Your task to perform on an android device: delete browsing data in the chrome app Image 0: 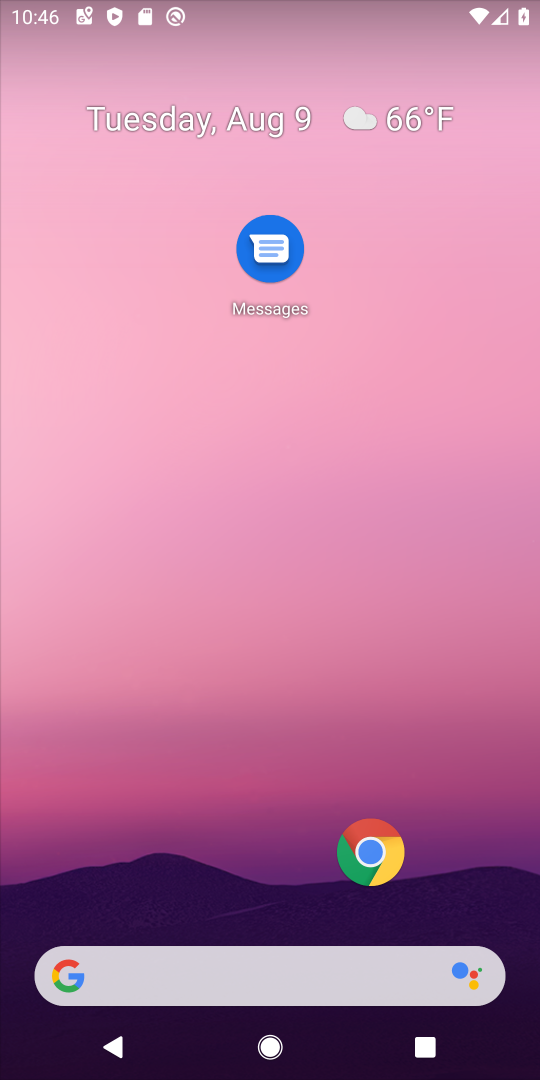
Step 0: click (354, 844)
Your task to perform on an android device: delete browsing data in the chrome app Image 1: 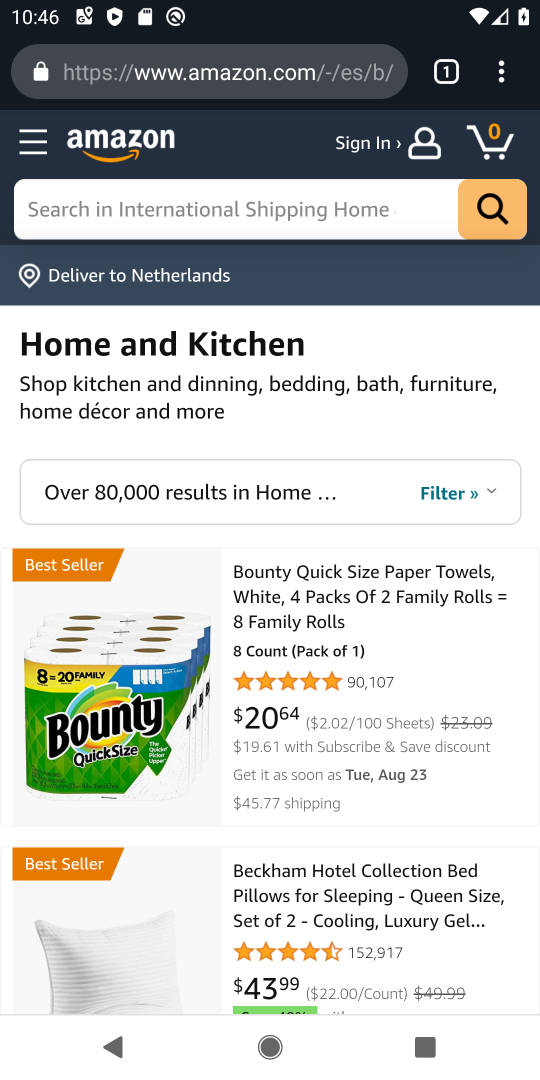
Step 1: click (491, 67)
Your task to perform on an android device: delete browsing data in the chrome app Image 2: 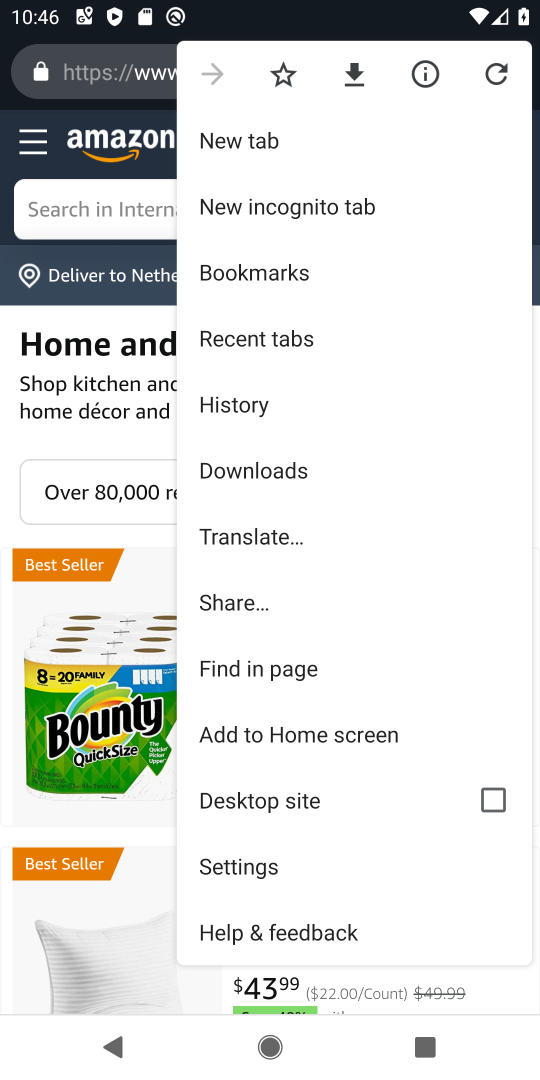
Step 2: click (242, 391)
Your task to perform on an android device: delete browsing data in the chrome app Image 3: 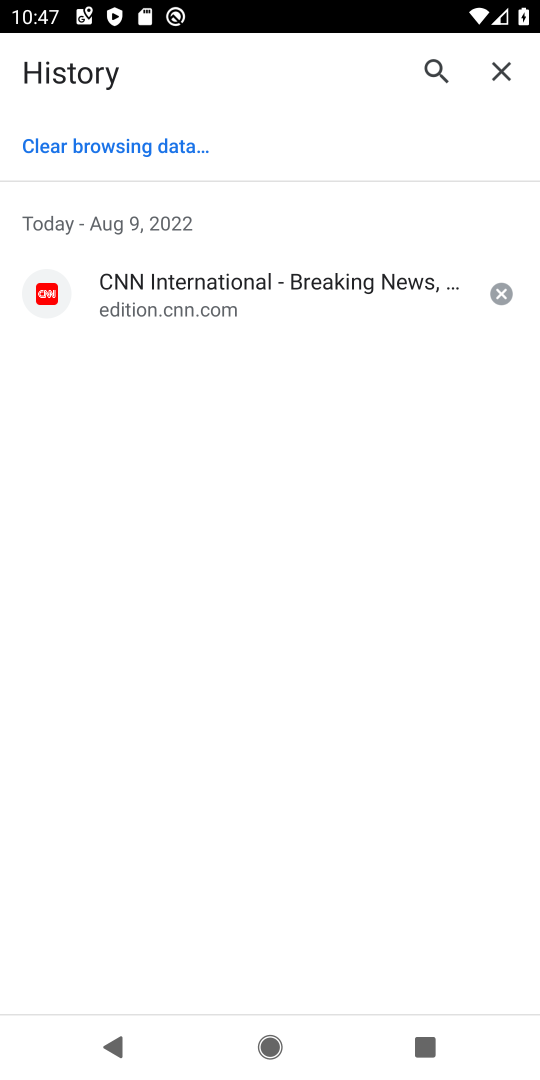
Step 3: click (114, 150)
Your task to perform on an android device: delete browsing data in the chrome app Image 4: 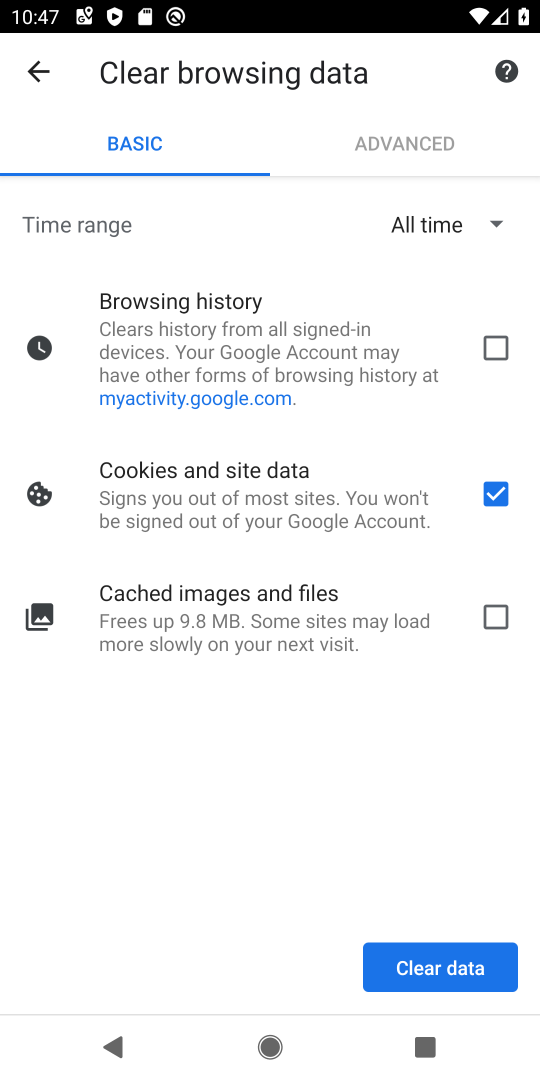
Step 4: click (493, 353)
Your task to perform on an android device: delete browsing data in the chrome app Image 5: 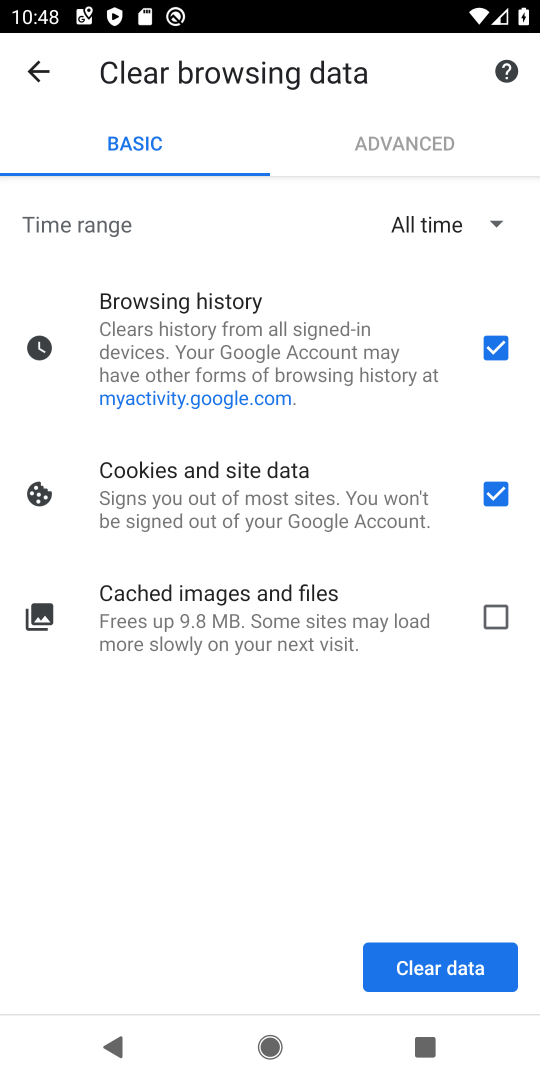
Step 5: click (496, 491)
Your task to perform on an android device: delete browsing data in the chrome app Image 6: 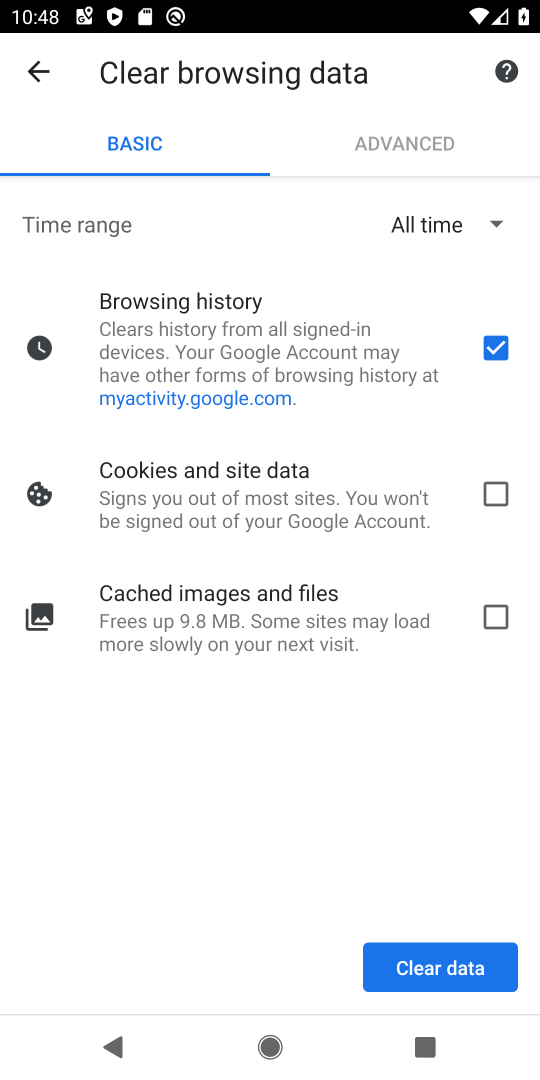
Step 6: click (464, 971)
Your task to perform on an android device: delete browsing data in the chrome app Image 7: 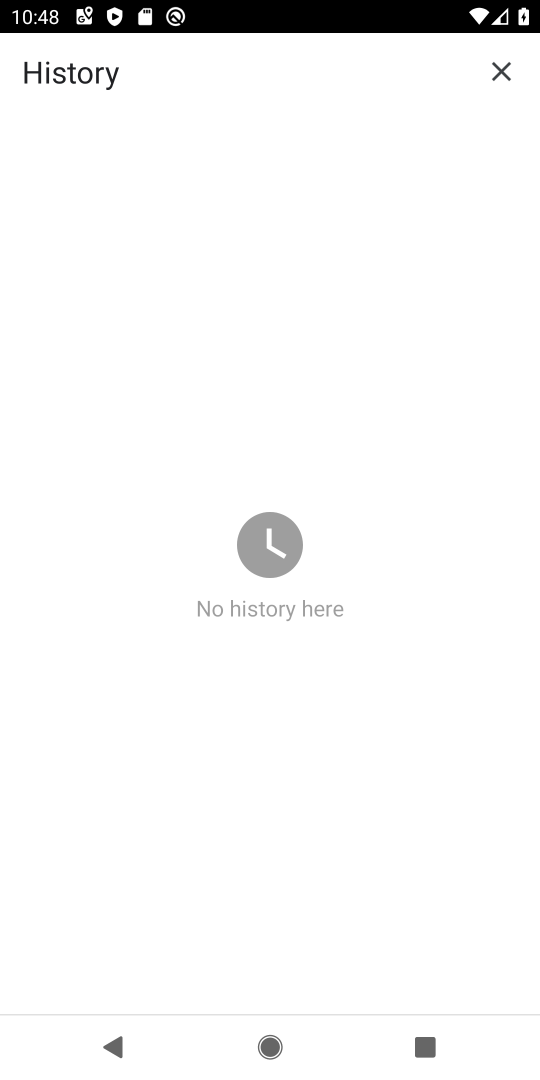
Step 7: task complete